Your task to perform on an android device: Is it going to rain this weekend? Image 0: 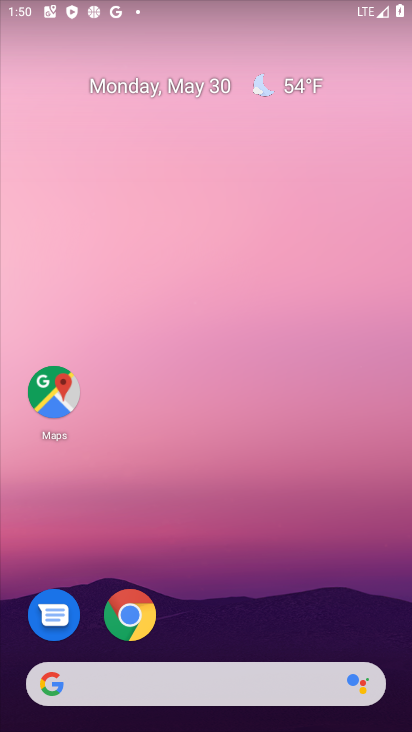
Step 0: click (312, 86)
Your task to perform on an android device: Is it going to rain this weekend? Image 1: 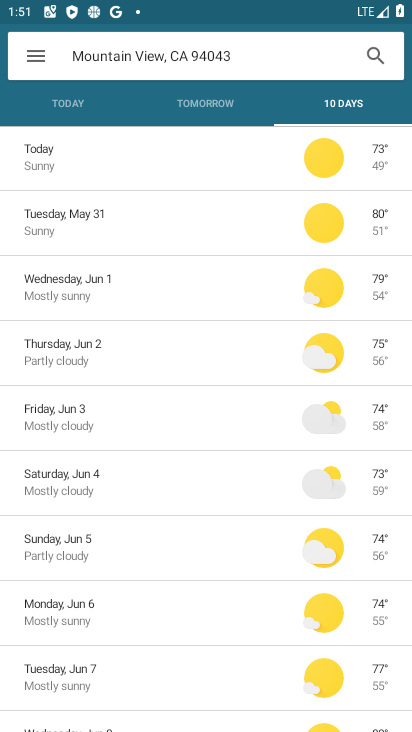
Step 1: task complete